Your task to perform on an android device: Open ESPN.com Image 0: 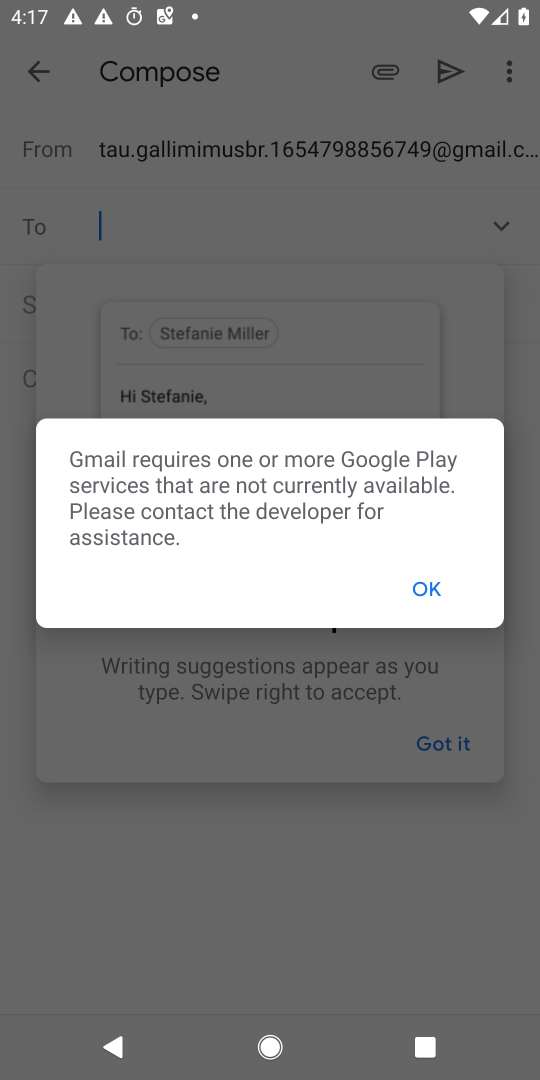
Step 0: press home button
Your task to perform on an android device: Open ESPN.com Image 1: 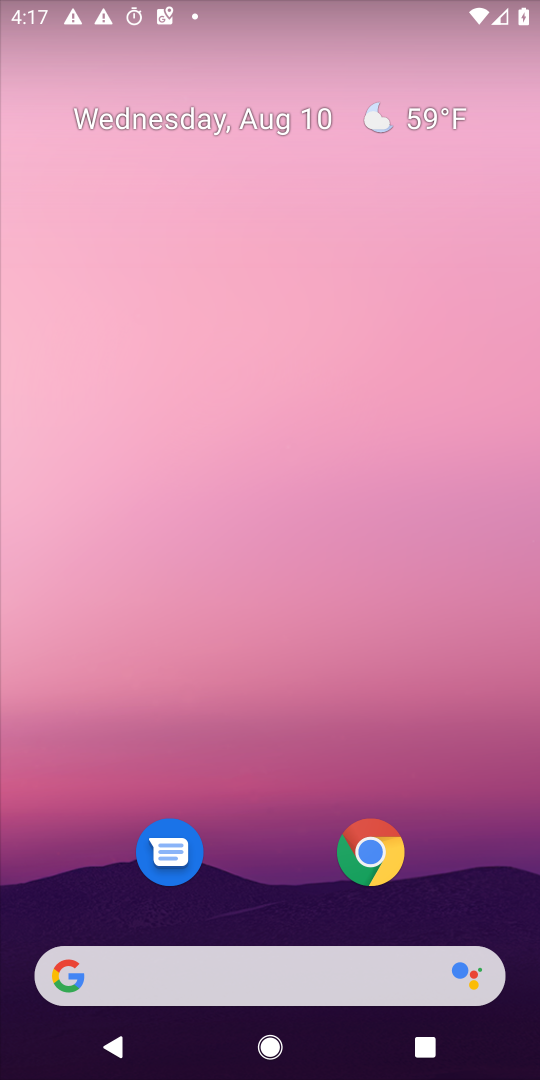
Step 1: drag from (268, 890) to (61, 149)
Your task to perform on an android device: Open ESPN.com Image 2: 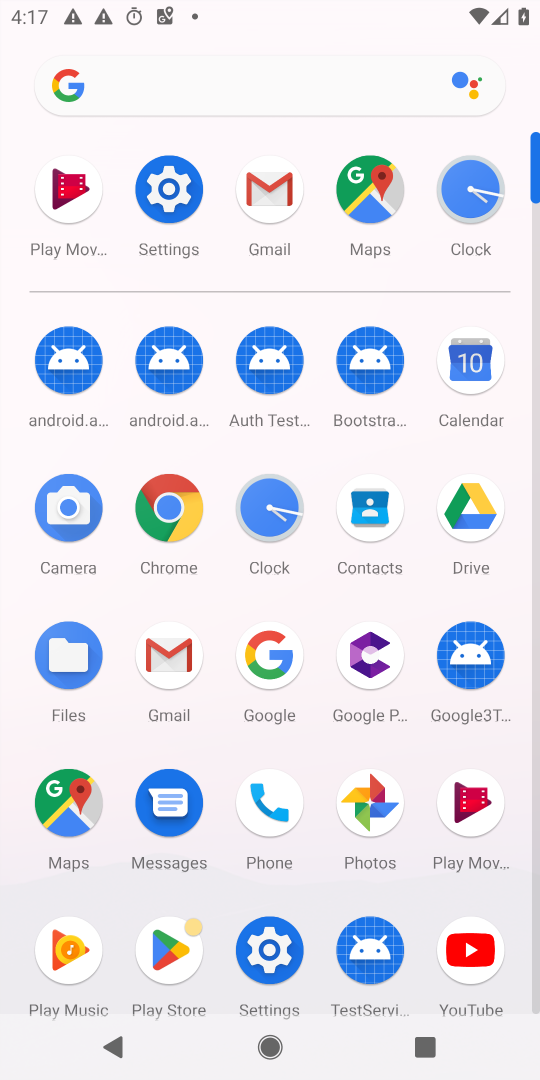
Step 2: click (168, 513)
Your task to perform on an android device: Open ESPN.com Image 3: 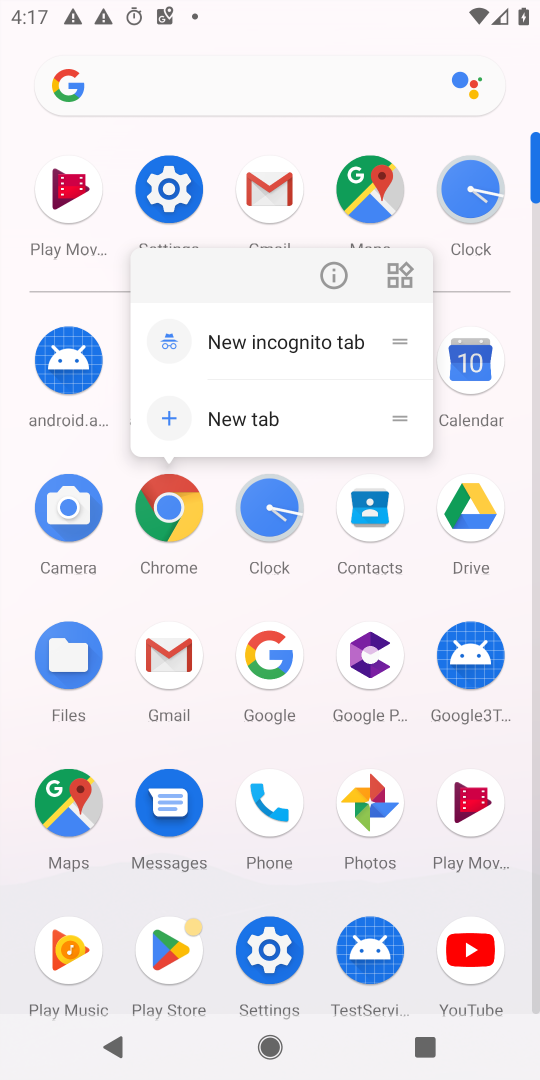
Step 3: click (168, 513)
Your task to perform on an android device: Open ESPN.com Image 4: 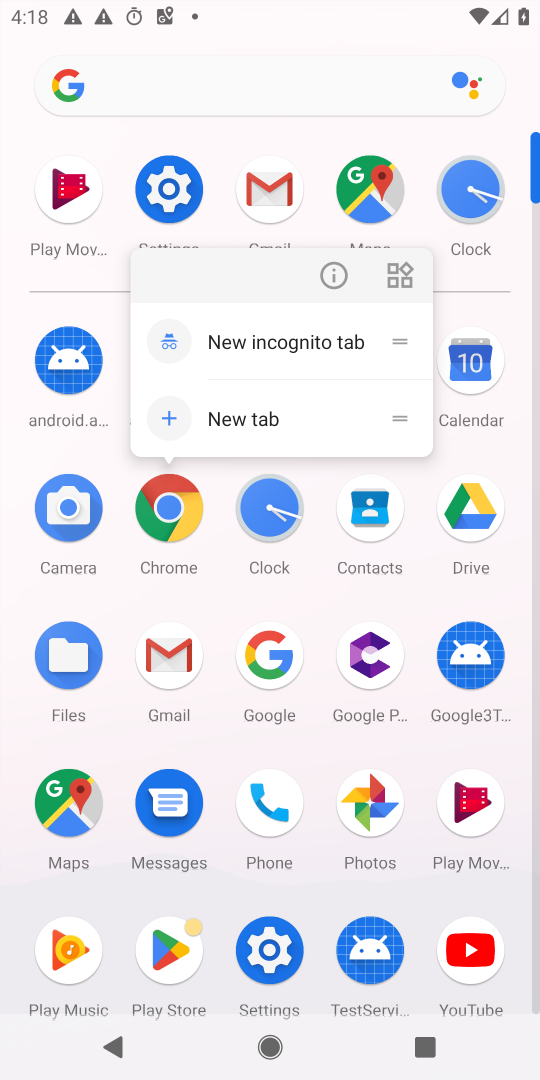
Step 4: click (168, 512)
Your task to perform on an android device: Open ESPN.com Image 5: 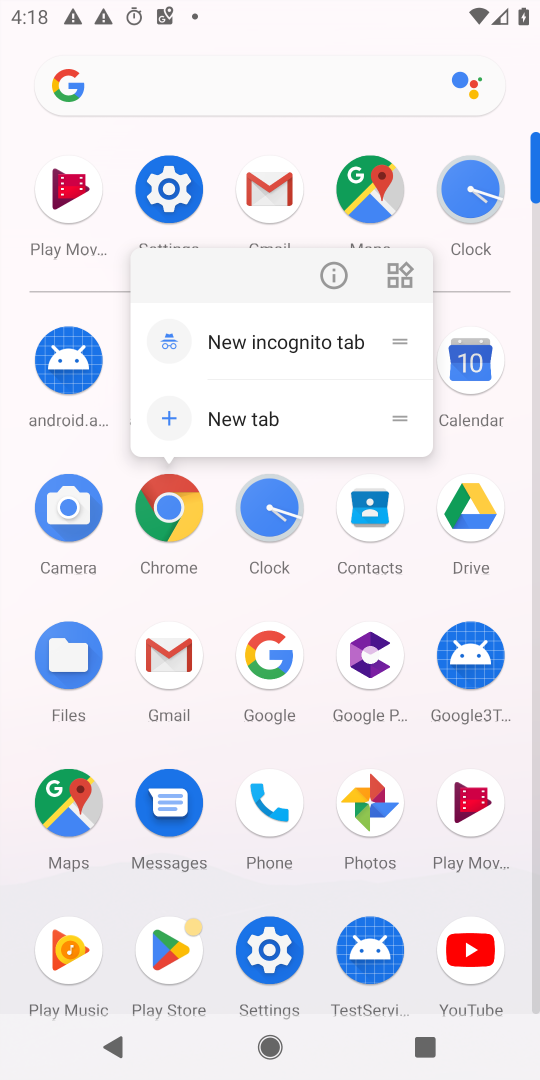
Step 5: click (316, 587)
Your task to perform on an android device: Open ESPN.com Image 6: 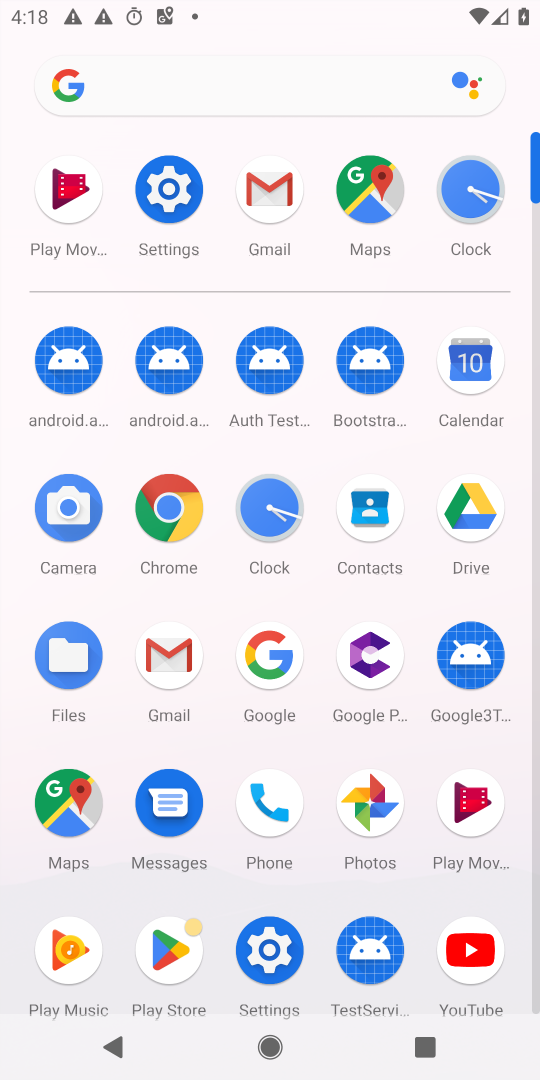
Step 6: click (151, 491)
Your task to perform on an android device: Open ESPN.com Image 7: 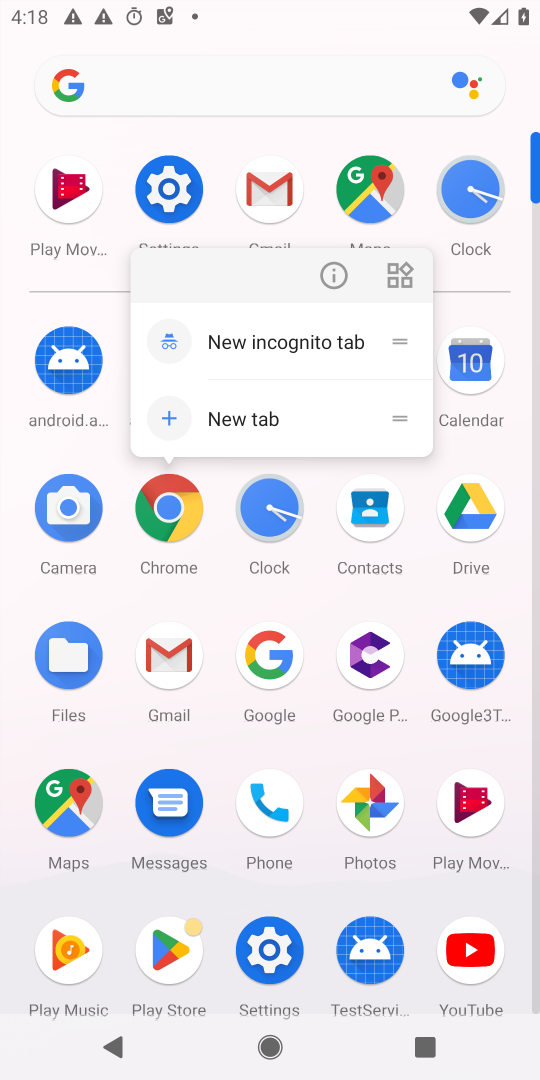
Step 7: click (194, 481)
Your task to perform on an android device: Open ESPN.com Image 8: 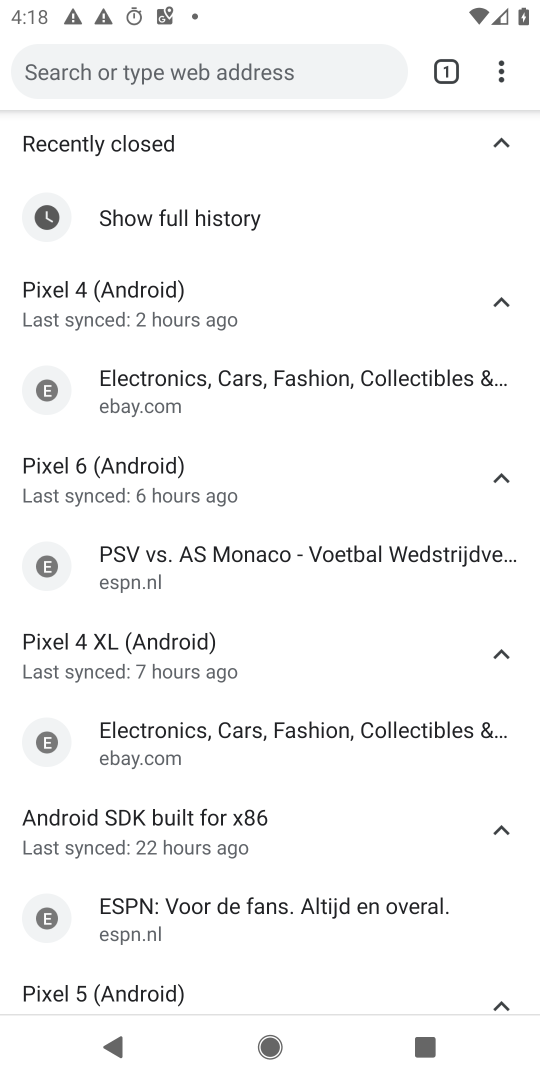
Step 8: click (356, 76)
Your task to perform on an android device: Open ESPN.com Image 9: 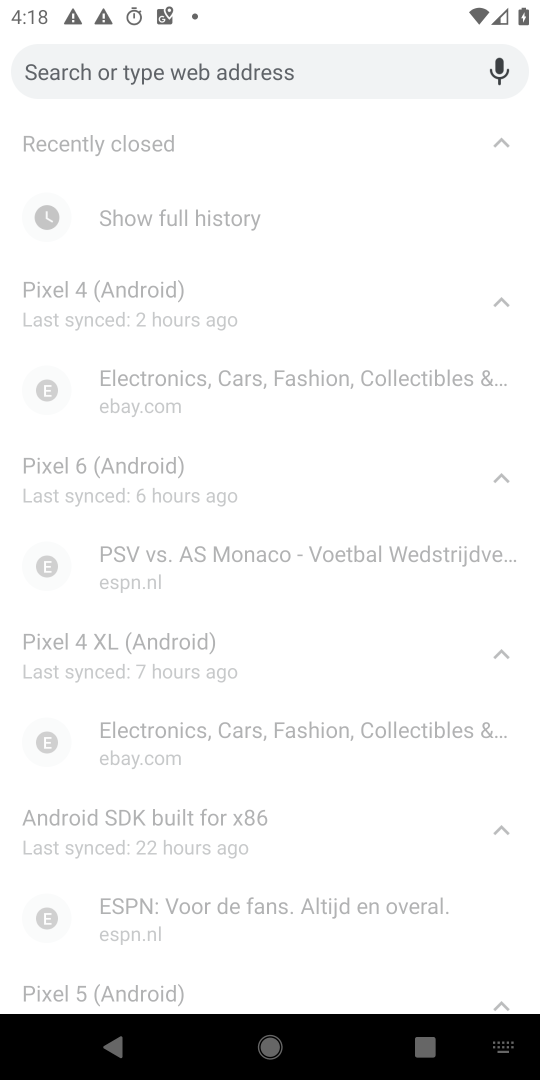
Step 9: type "ESPN.com"
Your task to perform on an android device: Open ESPN.com Image 10: 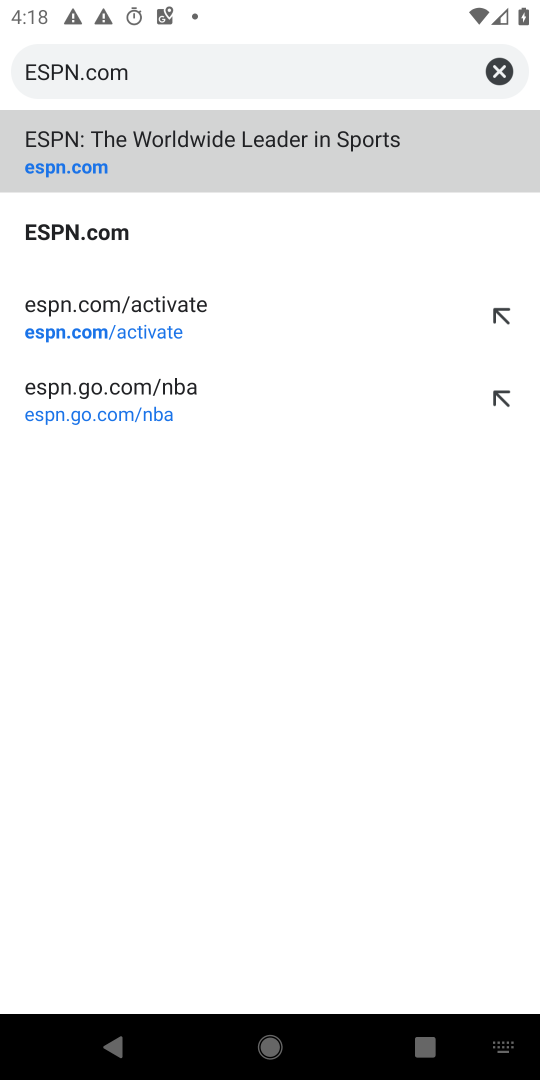
Step 10: click (126, 138)
Your task to perform on an android device: Open ESPN.com Image 11: 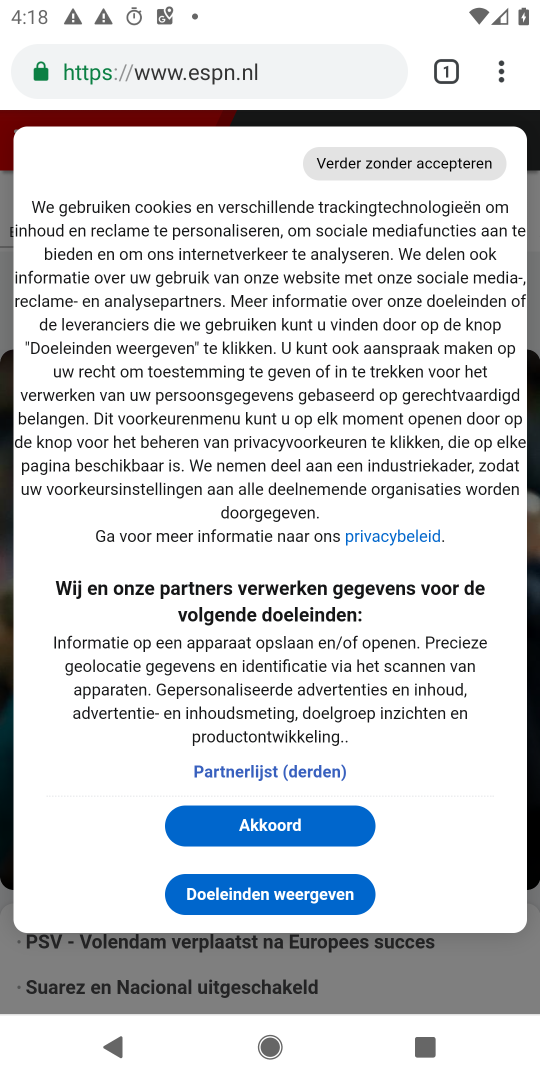
Step 11: task complete